Your task to perform on an android device: change notifications settings Image 0: 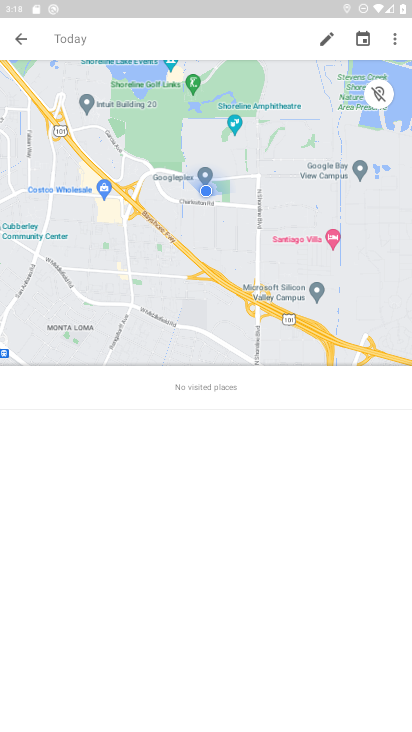
Step 0: press home button
Your task to perform on an android device: change notifications settings Image 1: 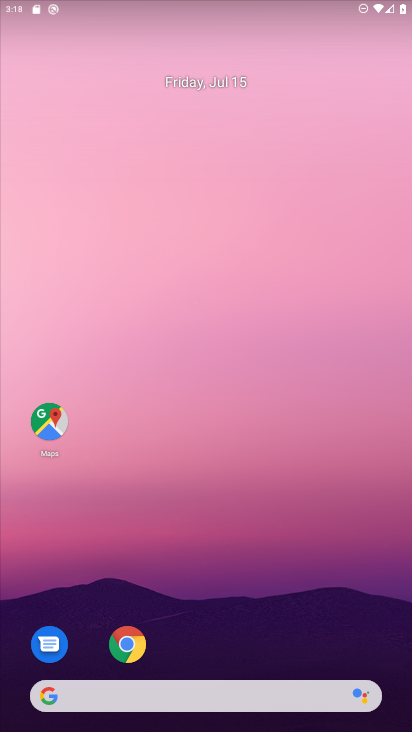
Step 1: drag from (66, 531) to (282, 98)
Your task to perform on an android device: change notifications settings Image 2: 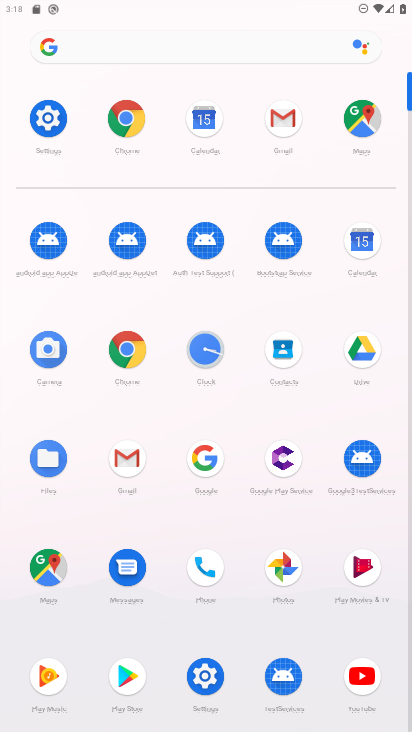
Step 2: click (43, 115)
Your task to perform on an android device: change notifications settings Image 3: 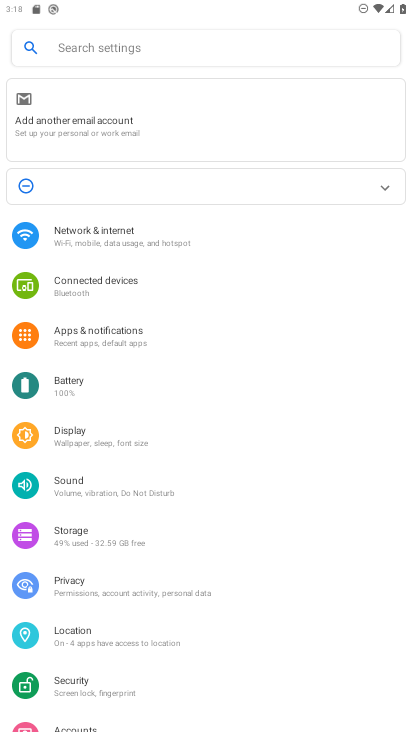
Step 3: click (149, 330)
Your task to perform on an android device: change notifications settings Image 4: 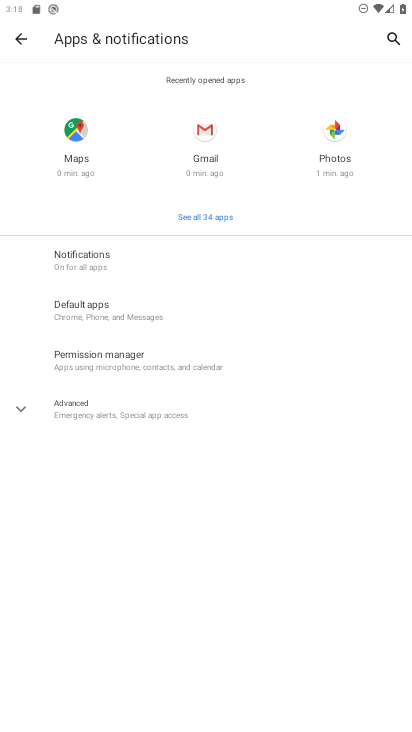
Step 4: click (131, 272)
Your task to perform on an android device: change notifications settings Image 5: 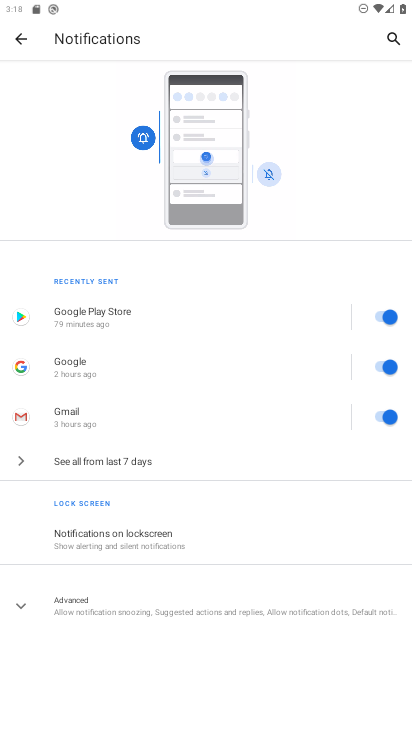
Step 5: click (197, 599)
Your task to perform on an android device: change notifications settings Image 6: 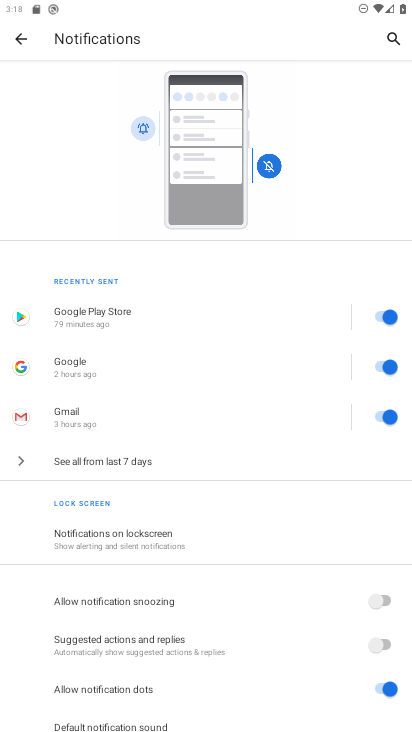
Step 6: task complete